Your task to perform on an android device: toggle show notifications on the lock screen Image 0: 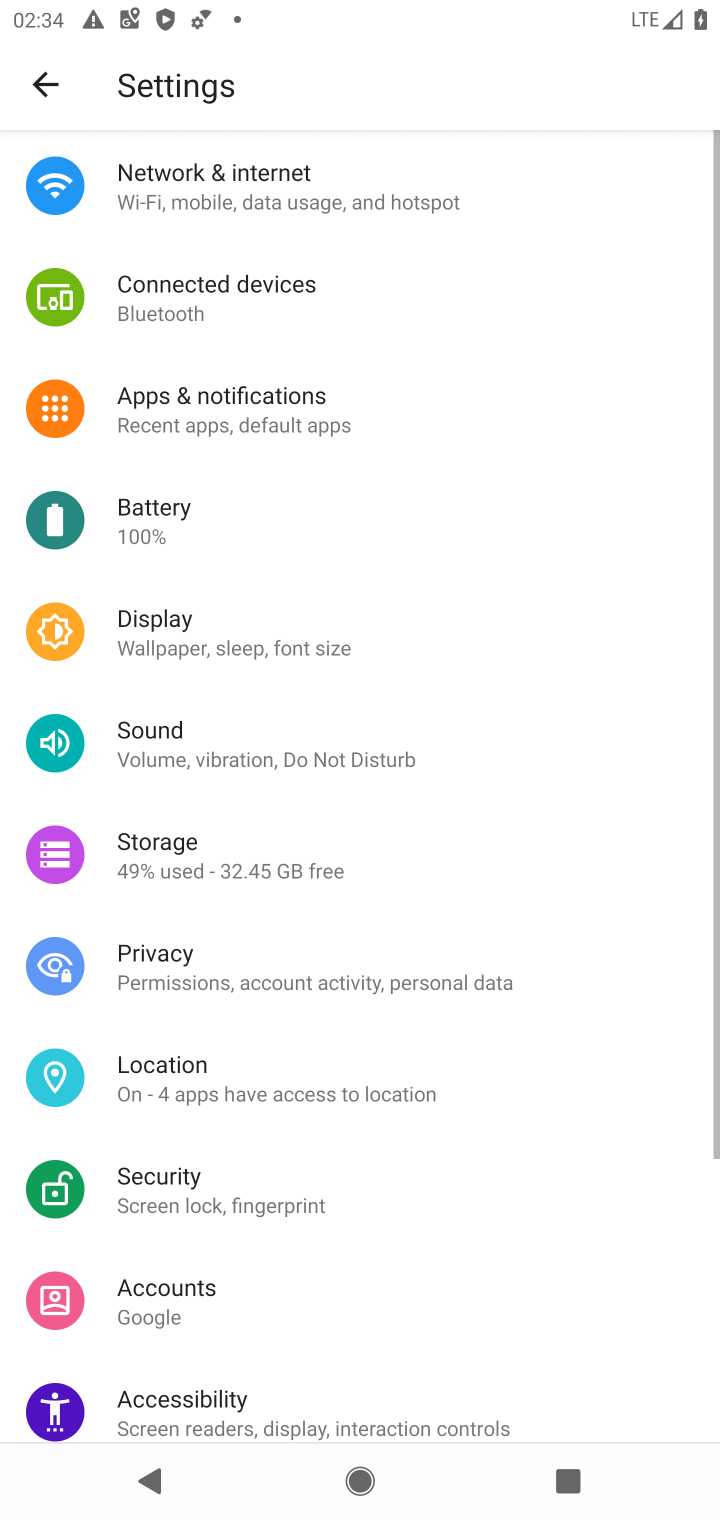
Step 0: press home button
Your task to perform on an android device: toggle show notifications on the lock screen Image 1: 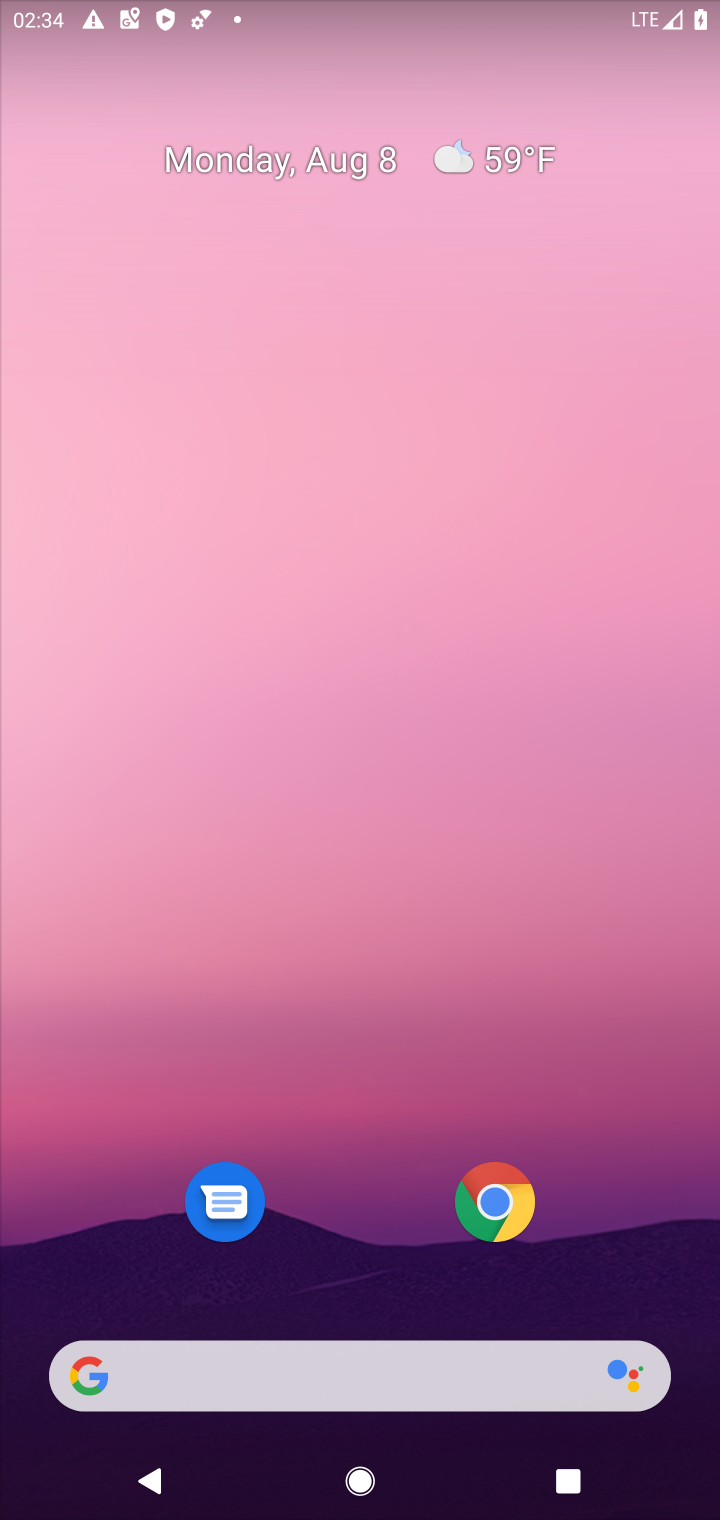
Step 1: drag from (347, 658) to (428, 285)
Your task to perform on an android device: toggle show notifications on the lock screen Image 2: 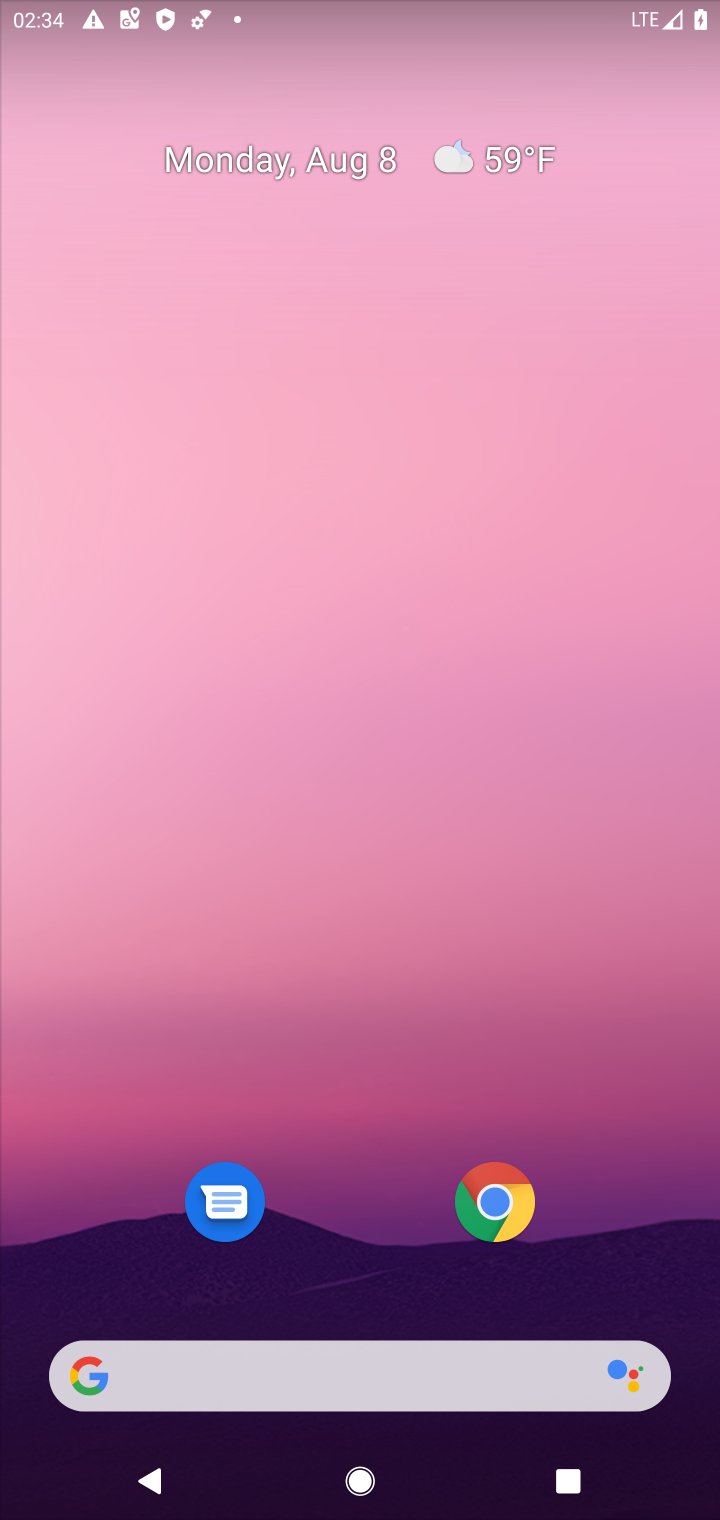
Step 2: drag from (421, 722) to (494, 467)
Your task to perform on an android device: toggle show notifications on the lock screen Image 3: 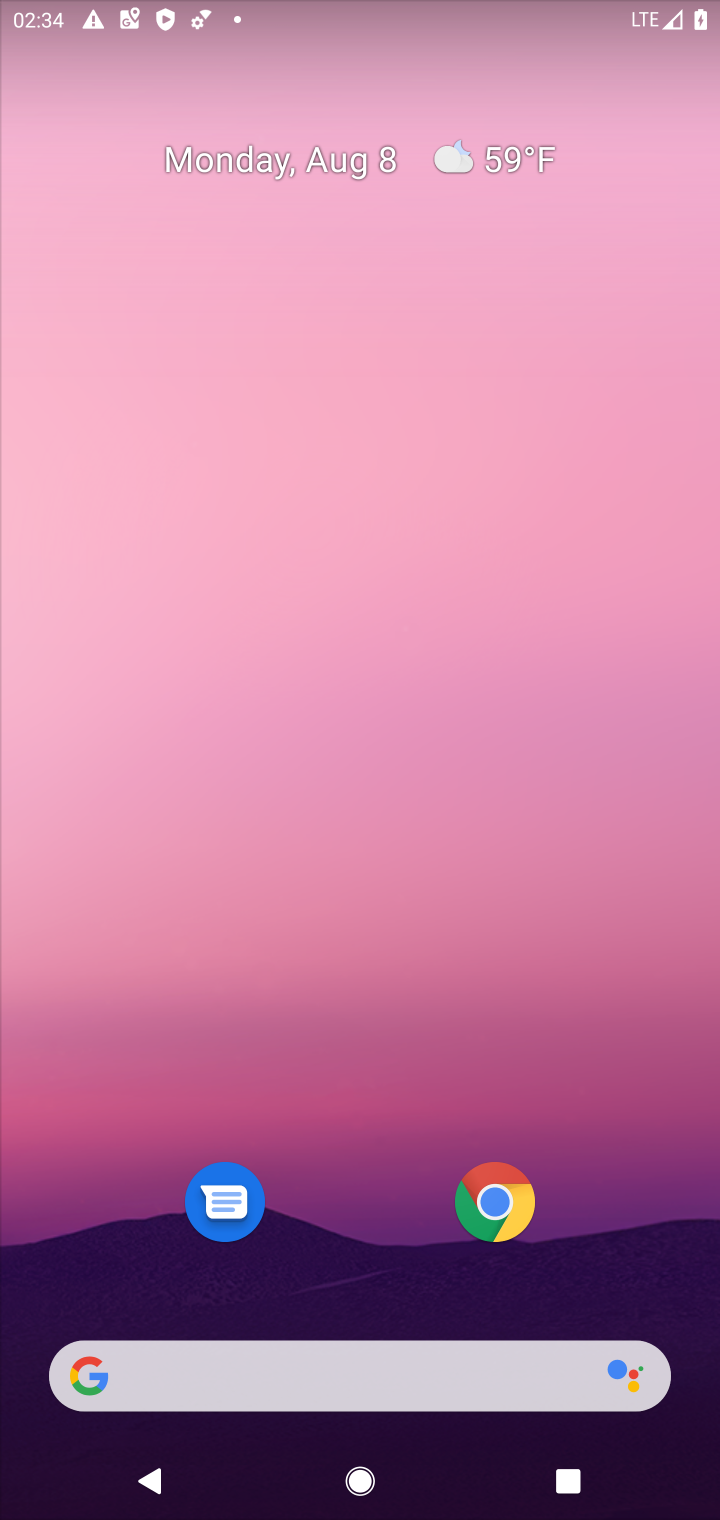
Step 3: drag from (462, 668) to (481, 567)
Your task to perform on an android device: toggle show notifications on the lock screen Image 4: 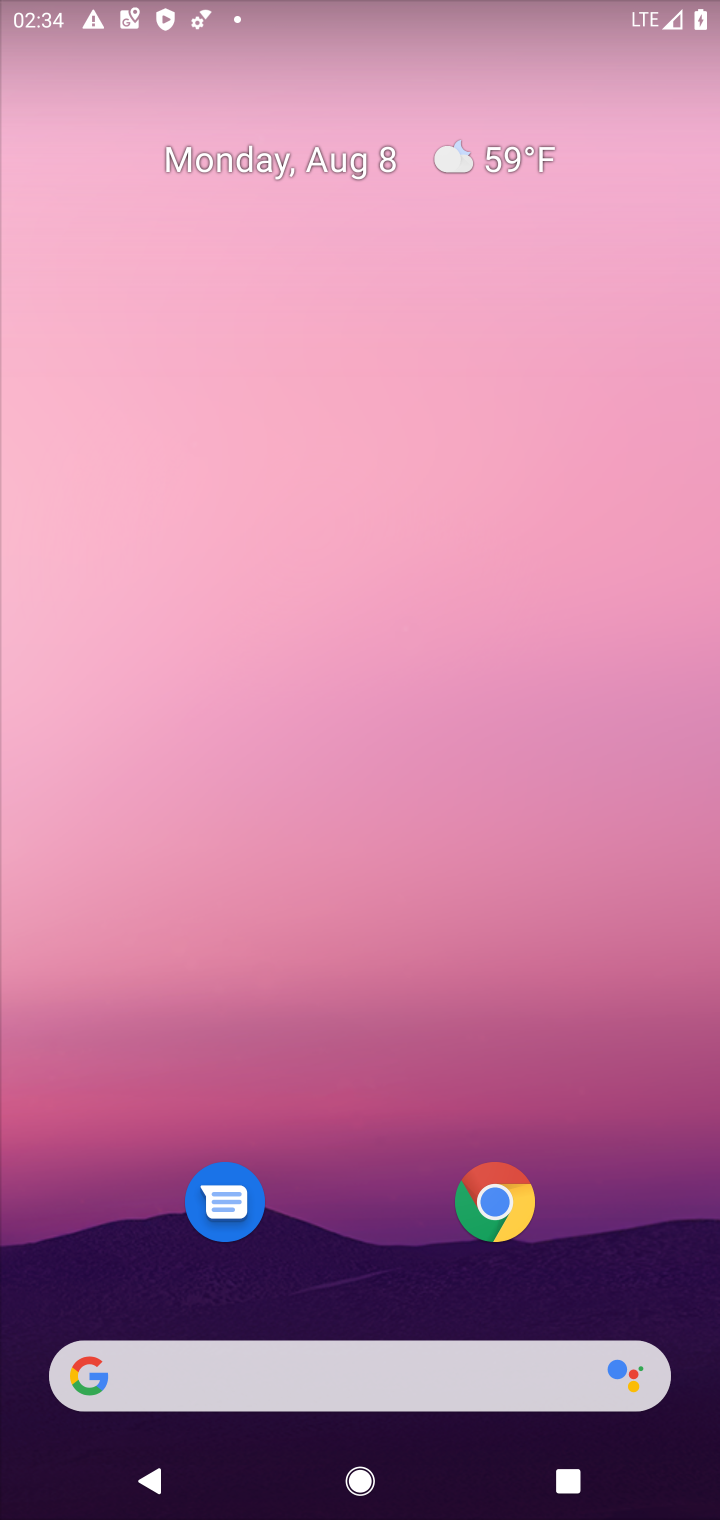
Step 4: drag from (373, 1262) to (395, 356)
Your task to perform on an android device: toggle show notifications on the lock screen Image 5: 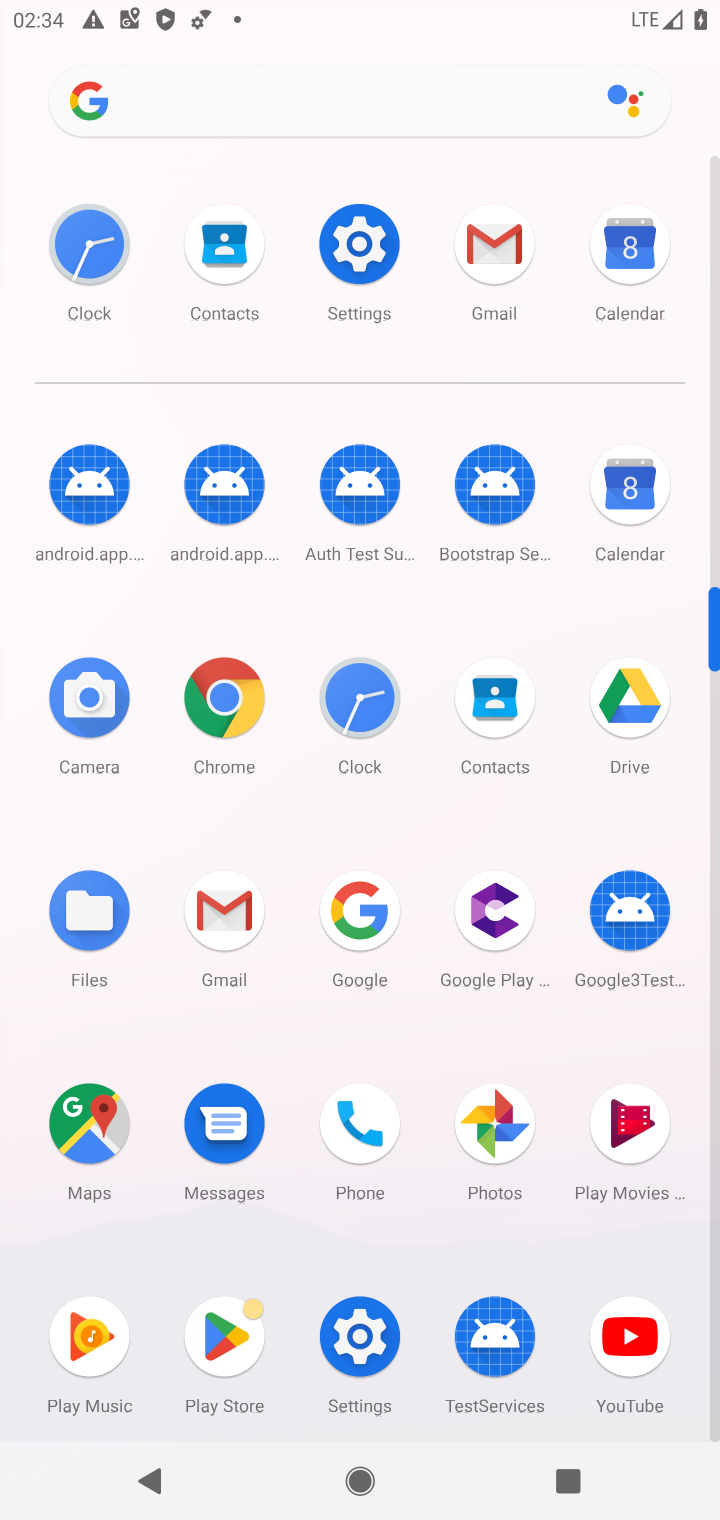
Step 5: click (363, 1349)
Your task to perform on an android device: toggle show notifications on the lock screen Image 6: 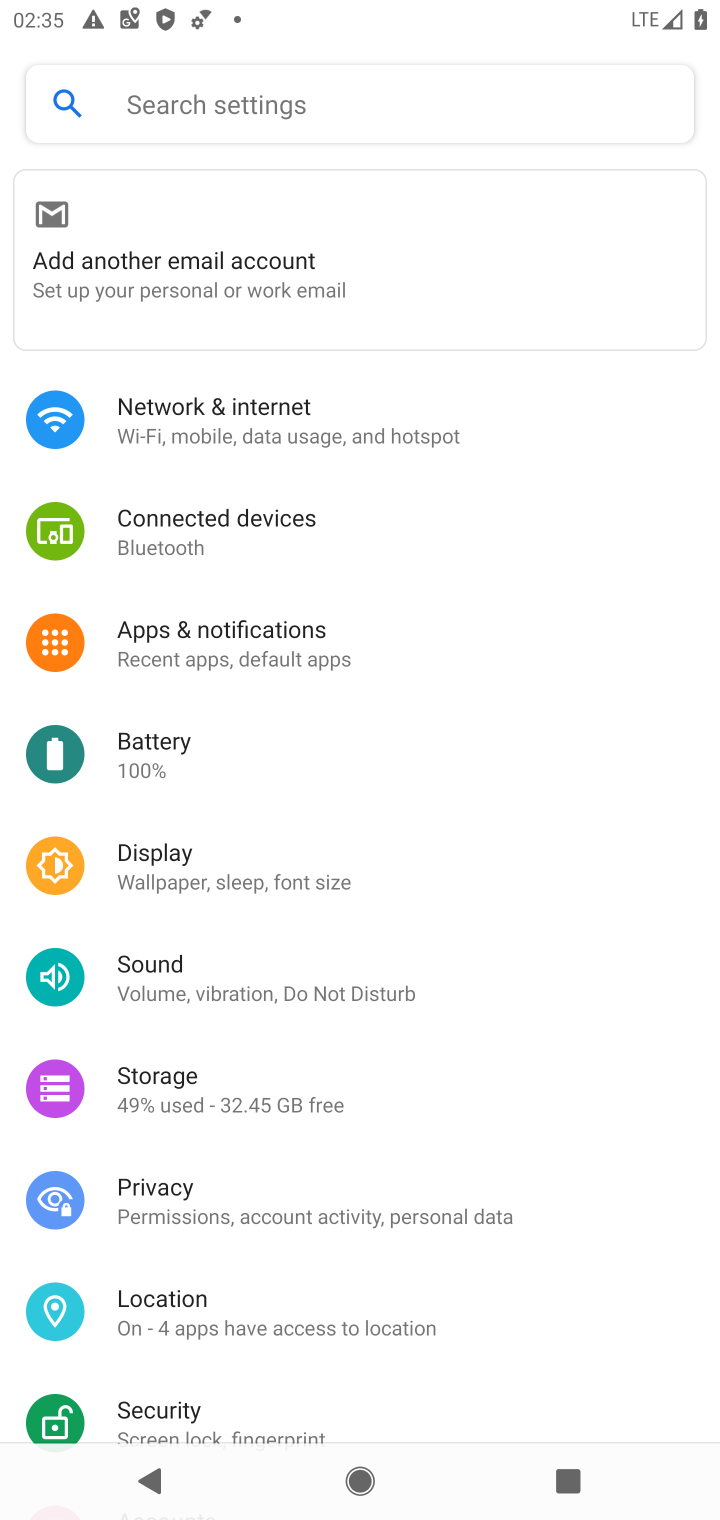
Step 6: click (427, 610)
Your task to perform on an android device: toggle show notifications on the lock screen Image 7: 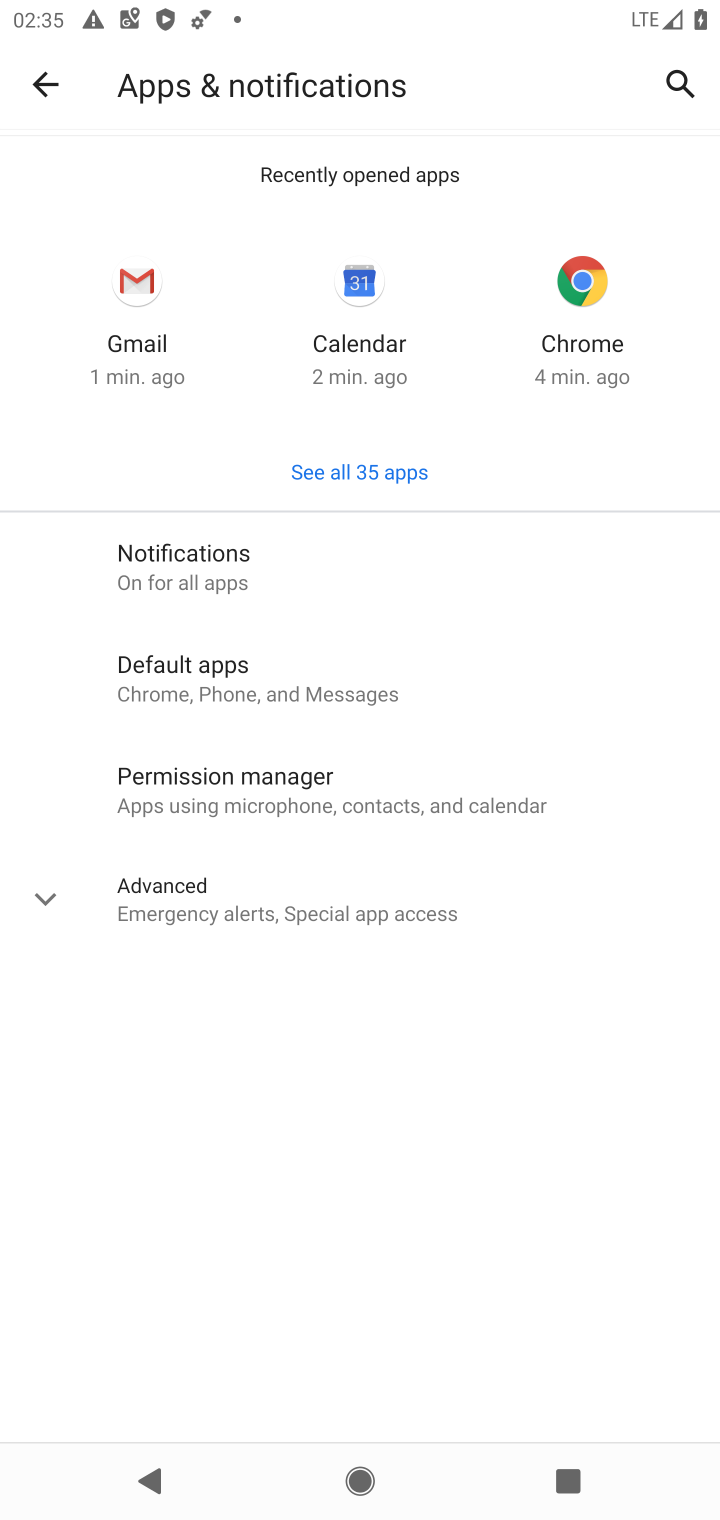
Step 7: click (35, 83)
Your task to perform on an android device: toggle show notifications on the lock screen Image 8: 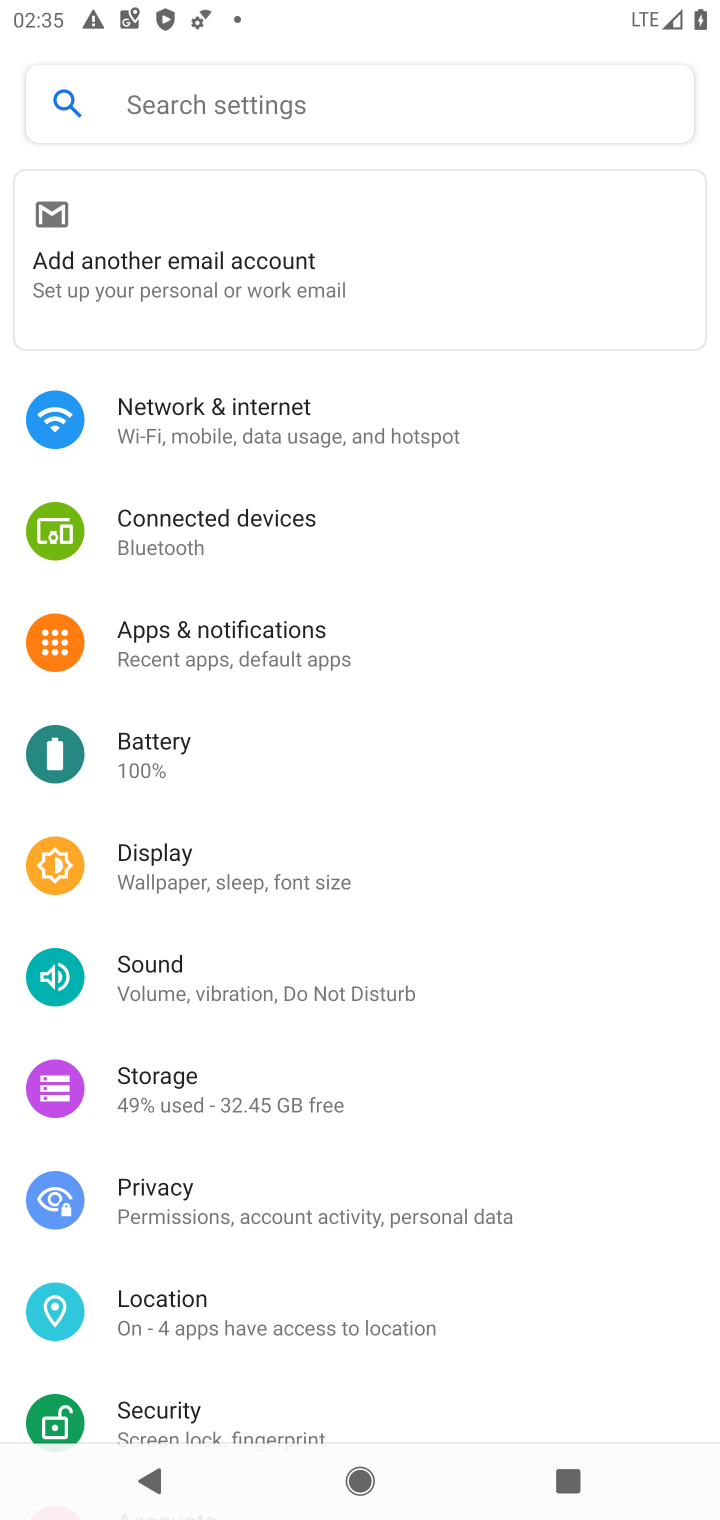
Step 8: drag from (240, 1324) to (240, 536)
Your task to perform on an android device: toggle show notifications on the lock screen Image 9: 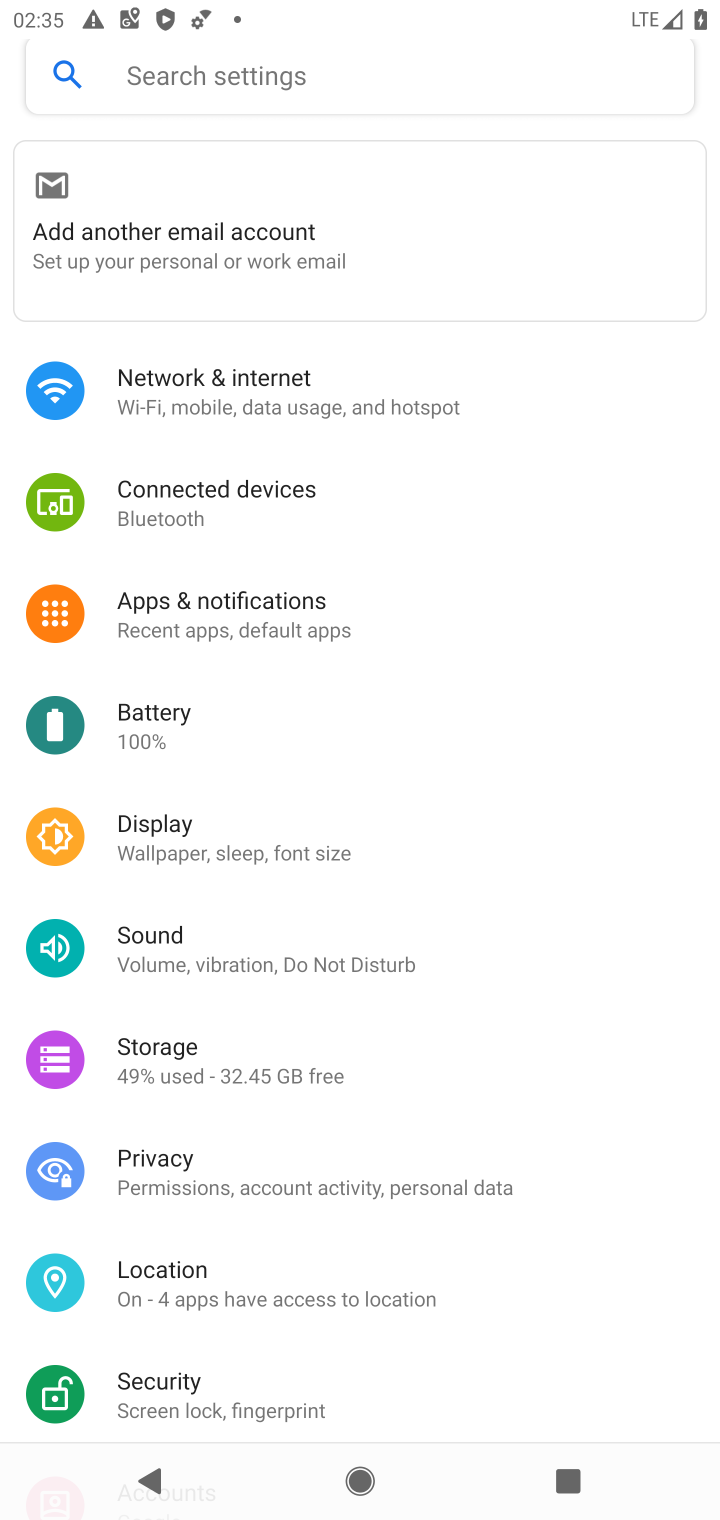
Step 9: drag from (238, 1279) to (243, 574)
Your task to perform on an android device: toggle show notifications on the lock screen Image 10: 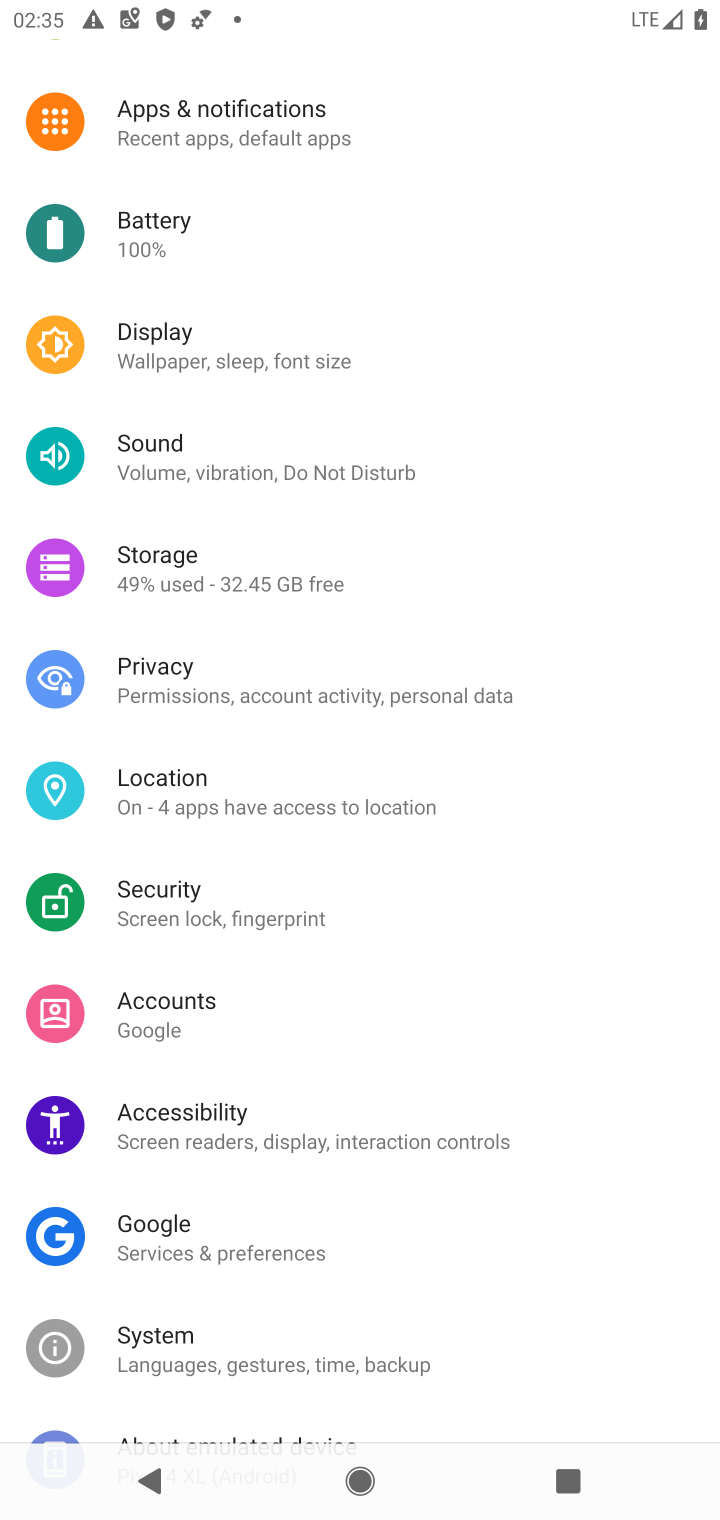
Step 10: click (253, 121)
Your task to perform on an android device: toggle show notifications on the lock screen Image 11: 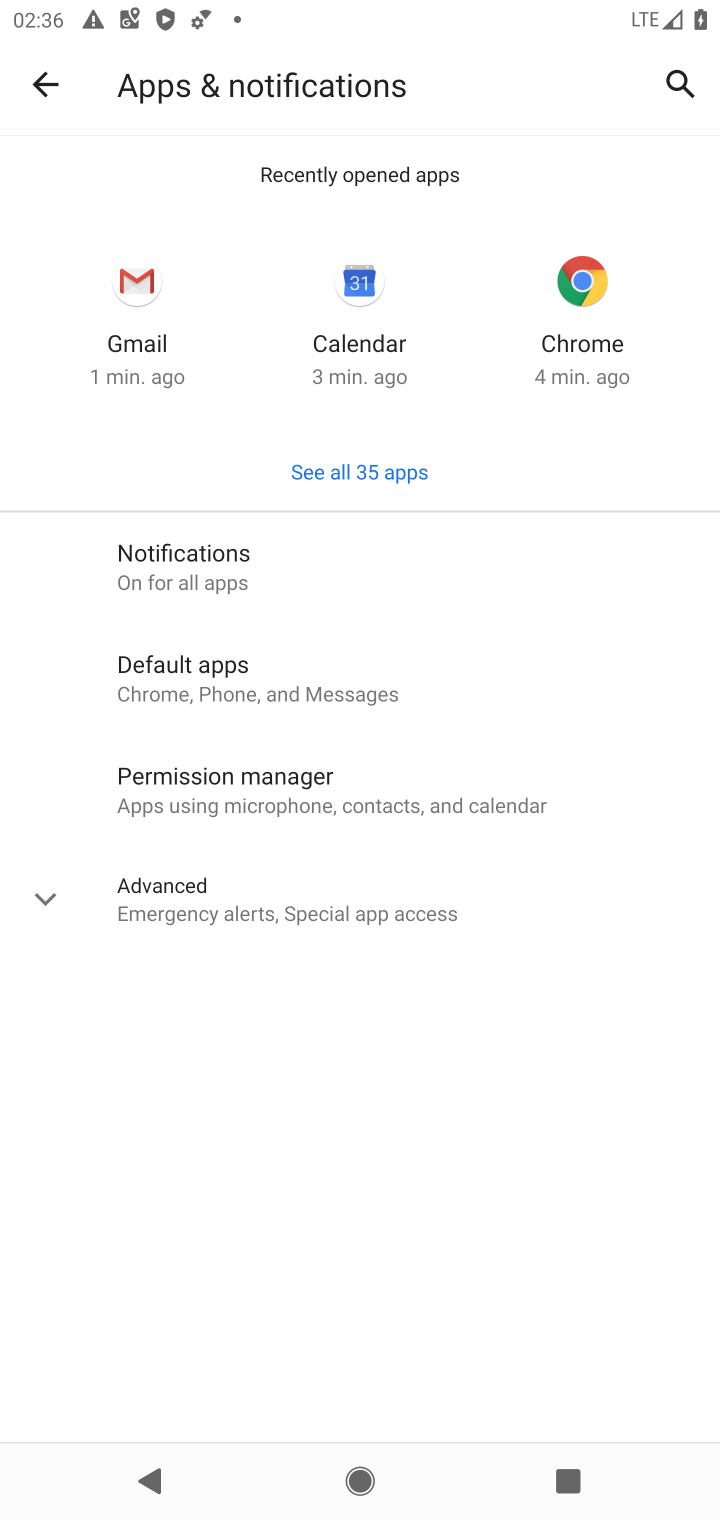
Step 11: click (162, 562)
Your task to perform on an android device: toggle show notifications on the lock screen Image 12: 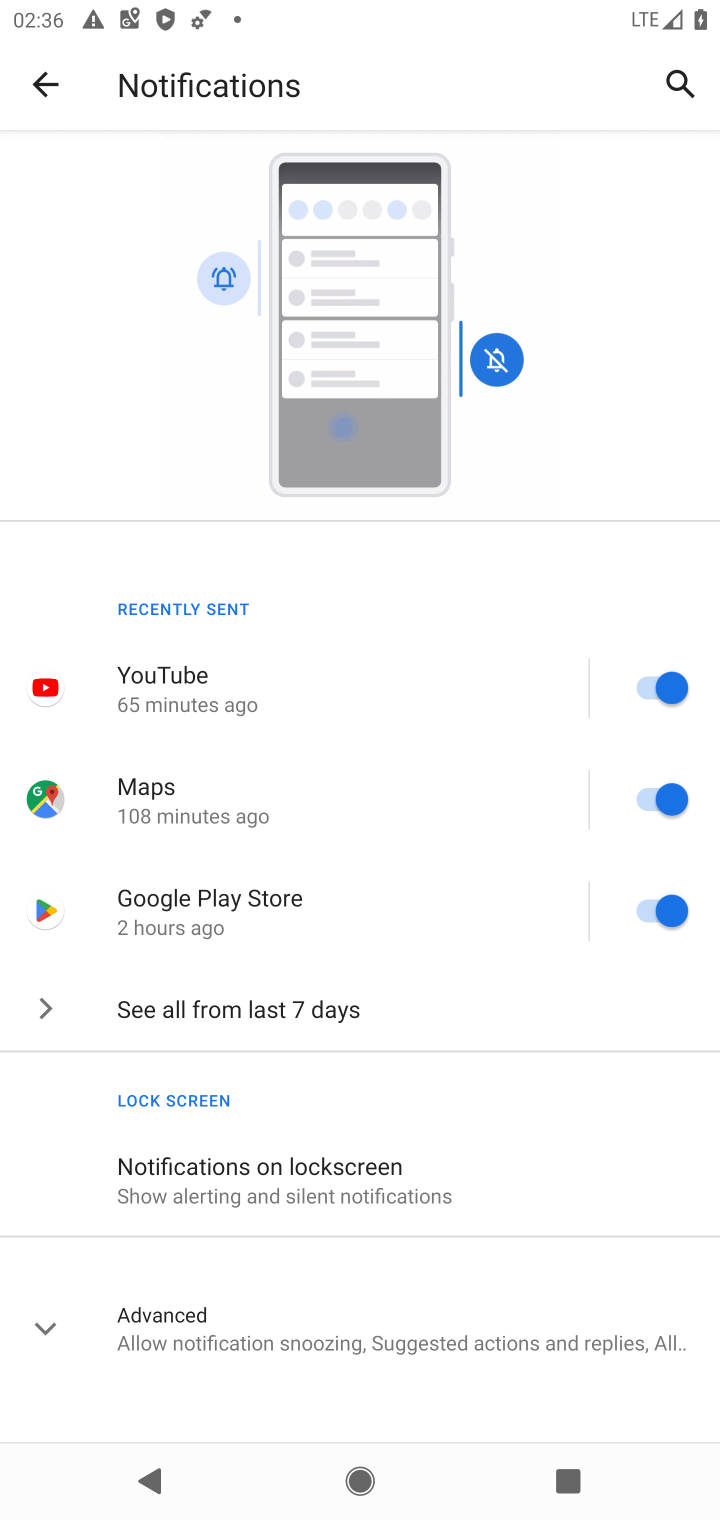
Step 12: click (193, 1174)
Your task to perform on an android device: toggle show notifications on the lock screen Image 13: 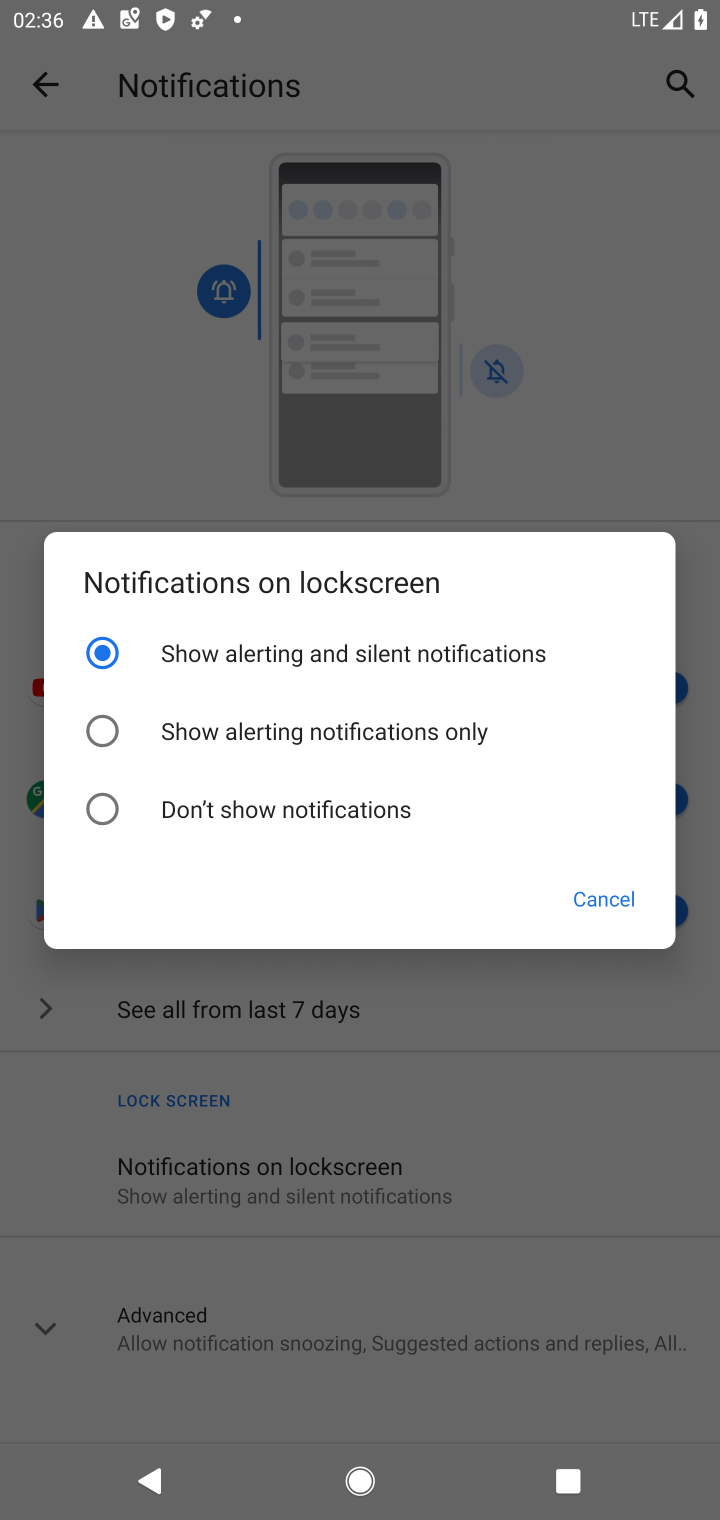
Step 13: click (103, 807)
Your task to perform on an android device: toggle show notifications on the lock screen Image 14: 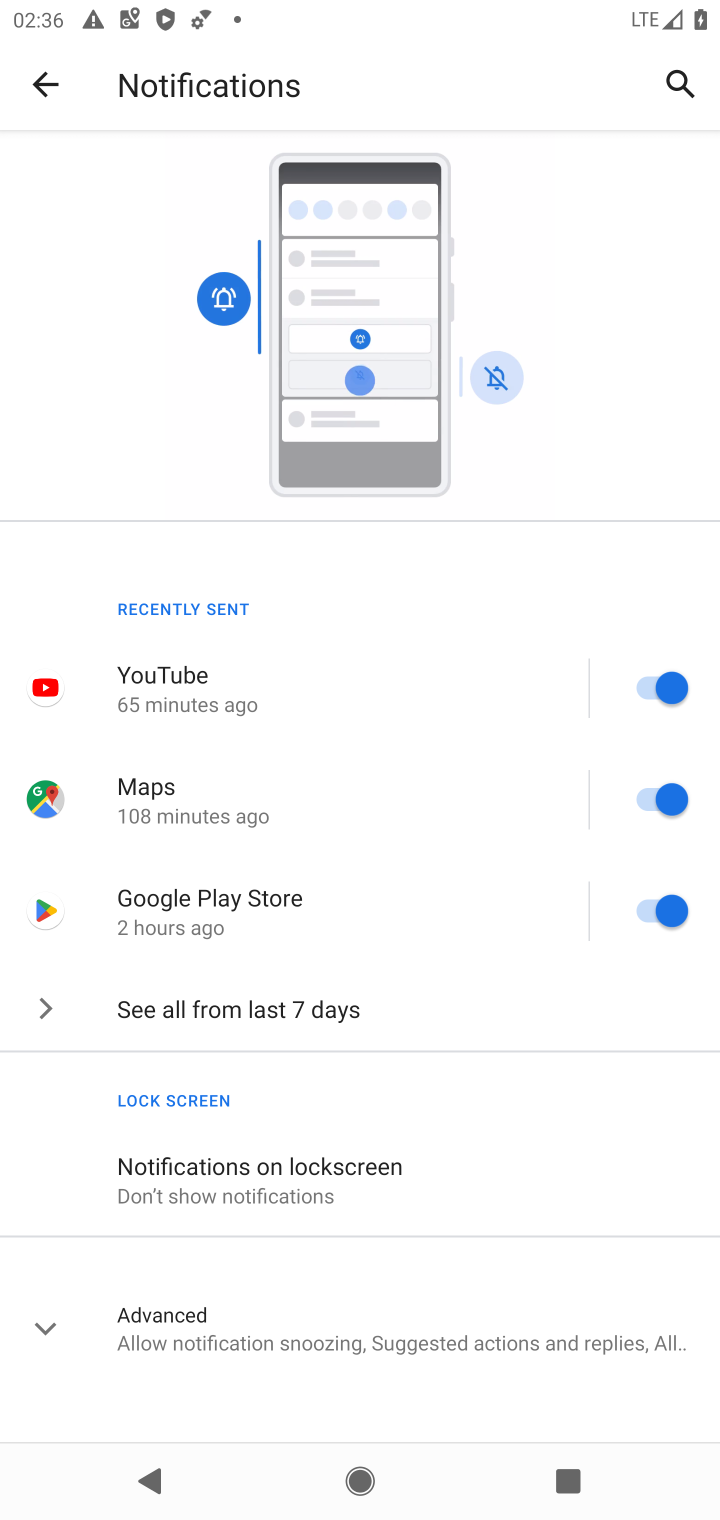
Step 14: click (322, 1190)
Your task to perform on an android device: toggle show notifications on the lock screen Image 15: 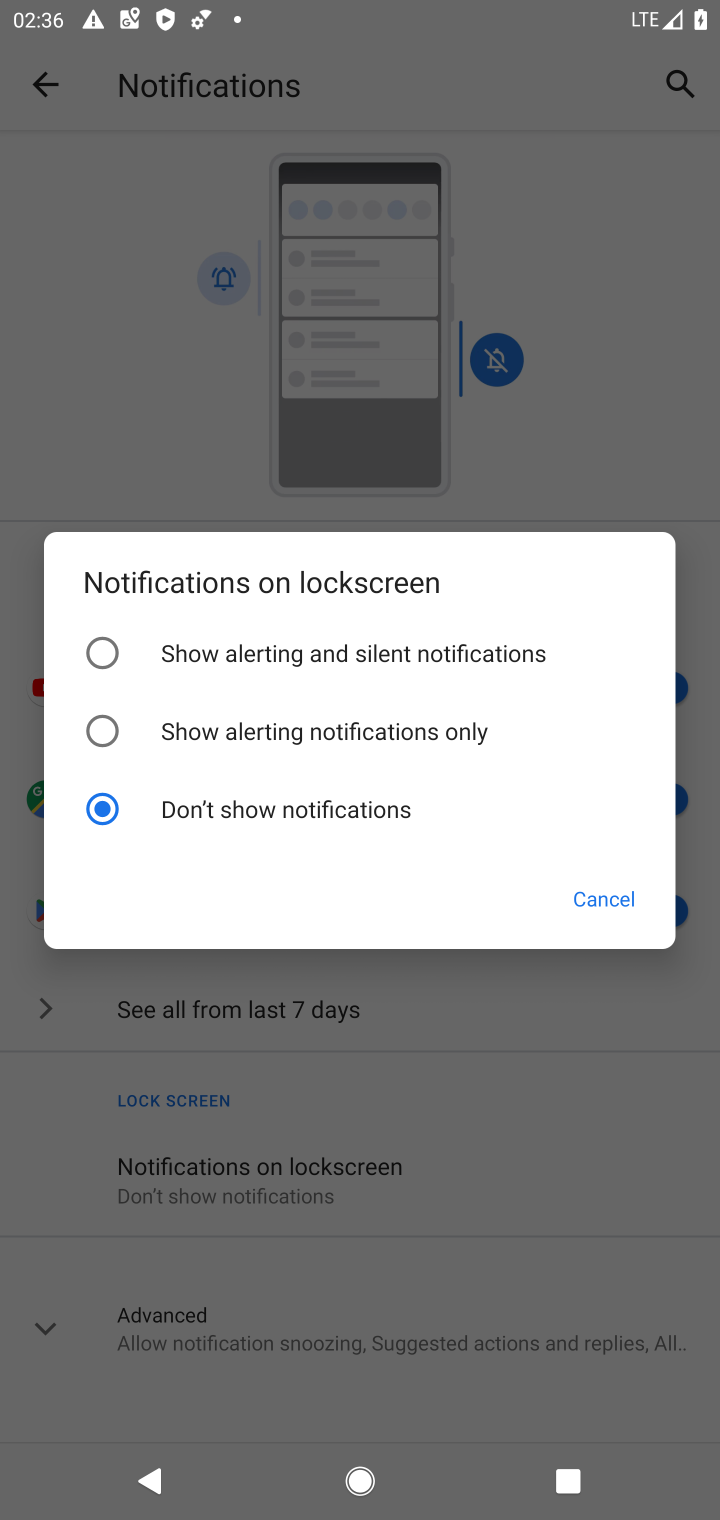
Step 15: click (106, 651)
Your task to perform on an android device: toggle show notifications on the lock screen Image 16: 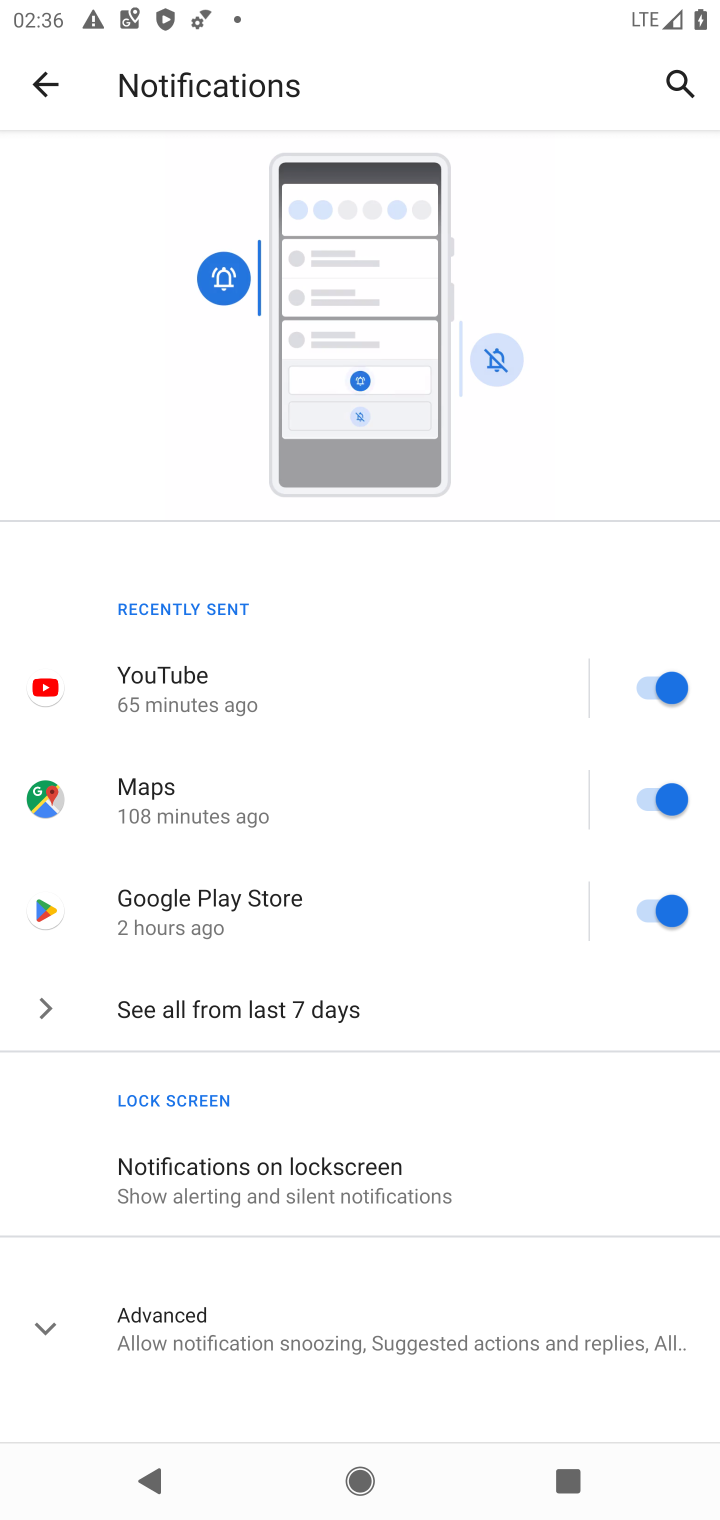
Step 16: task complete